Your task to perform on an android device: turn off smart reply in the gmail app Image 0: 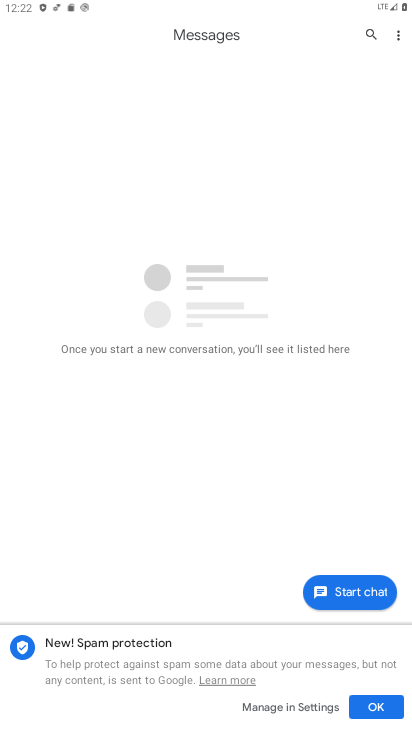
Step 0: press home button
Your task to perform on an android device: turn off smart reply in the gmail app Image 1: 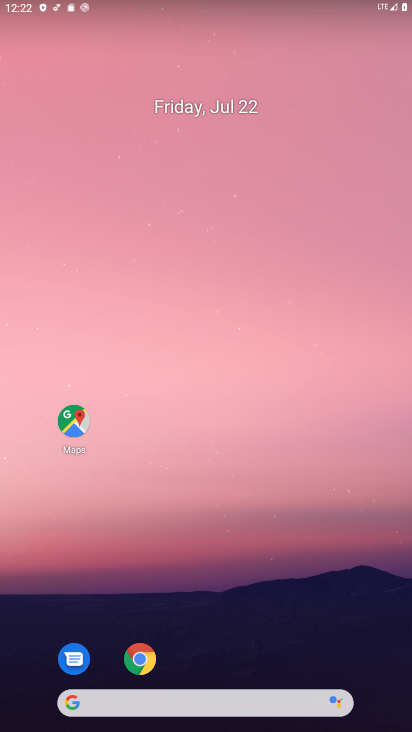
Step 1: drag from (229, 433) to (265, 101)
Your task to perform on an android device: turn off smart reply in the gmail app Image 2: 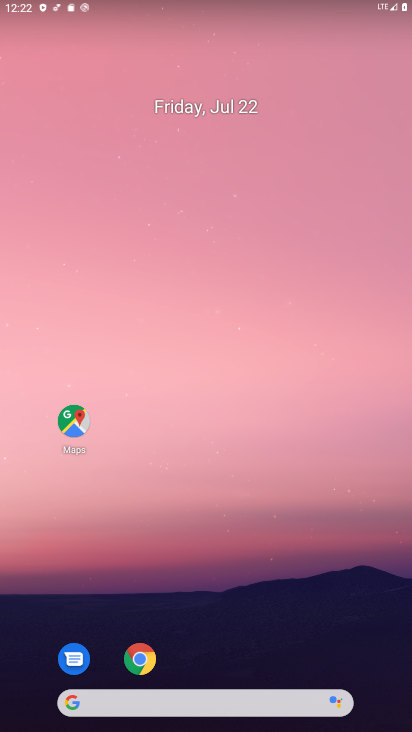
Step 2: drag from (224, 666) to (224, 60)
Your task to perform on an android device: turn off smart reply in the gmail app Image 3: 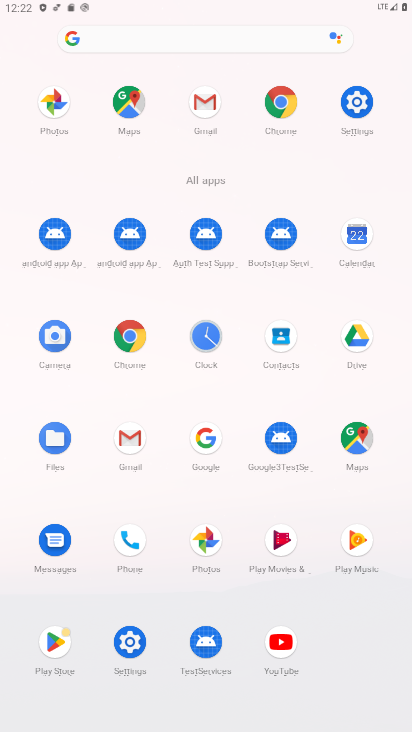
Step 3: click (200, 105)
Your task to perform on an android device: turn off smart reply in the gmail app Image 4: 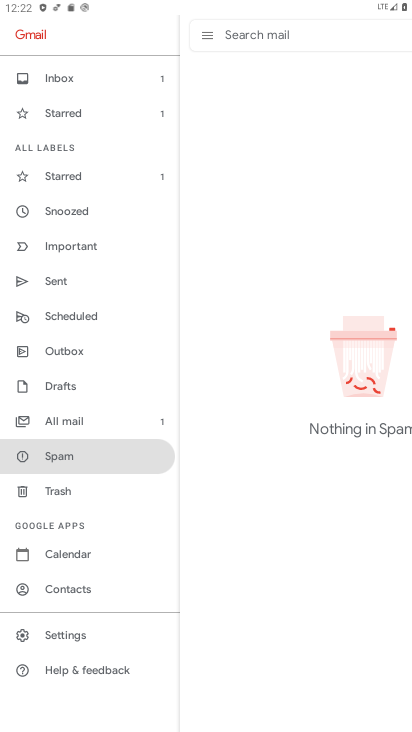
Step 4: click (73, 628)
Your task to perform on an android device: turn off smart reply in the gmail app Image 5: 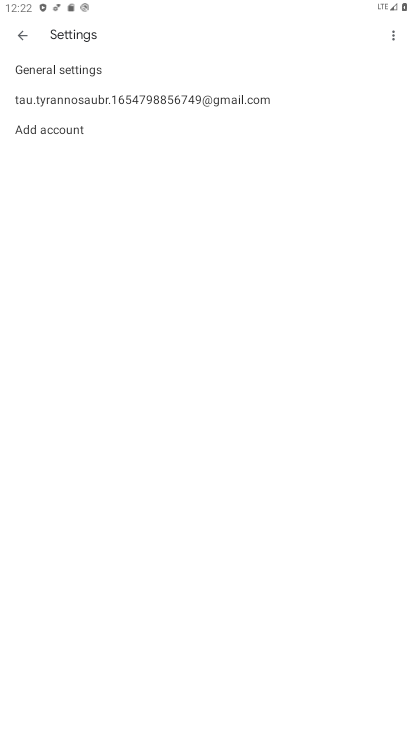
Step 5: click (147, 104)
Your task to perform on an android device: turn off smart reply in the gmail app Image 6: 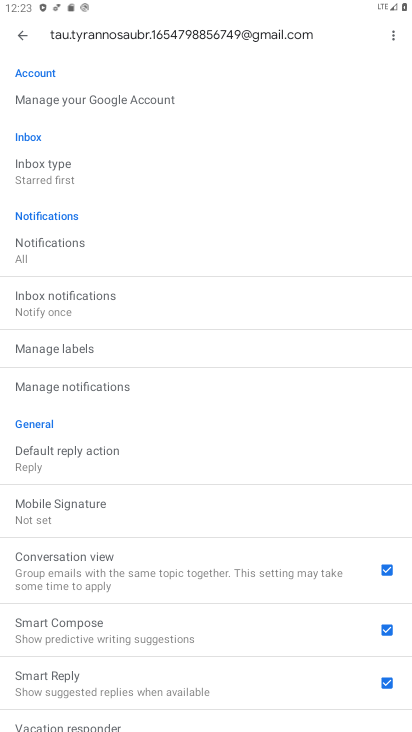
Step 6: click (394, 681)
Your task to perform on an android device: turn off smart reply in the gmail app Image 7: 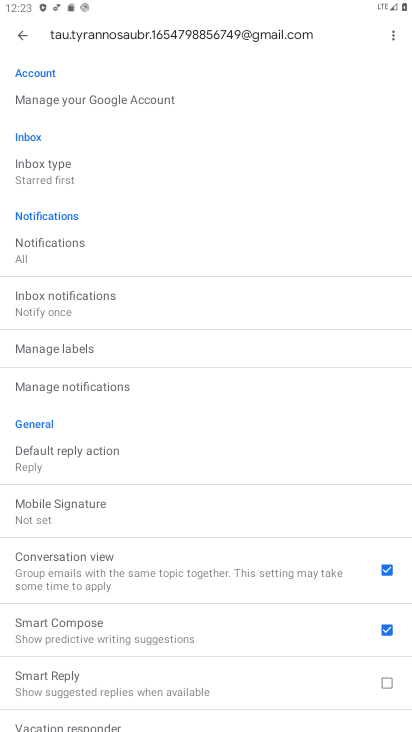
Step 7: task complete